Your task to perform on an android device: Open ESPN.com Image 0: 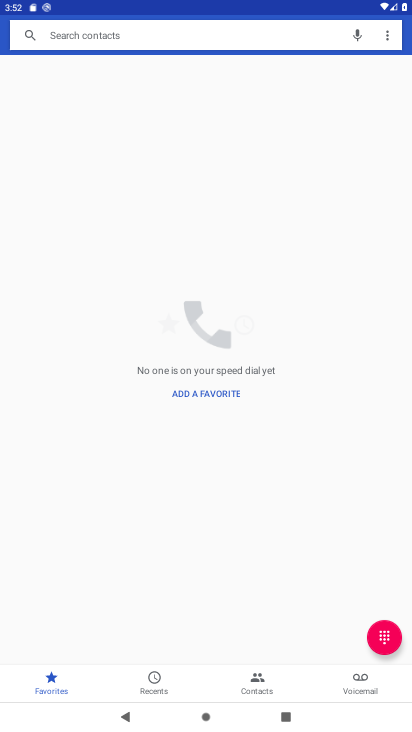
Step 0: press home button
Your task to perform on an android device: Open ESPN.com Image 1: 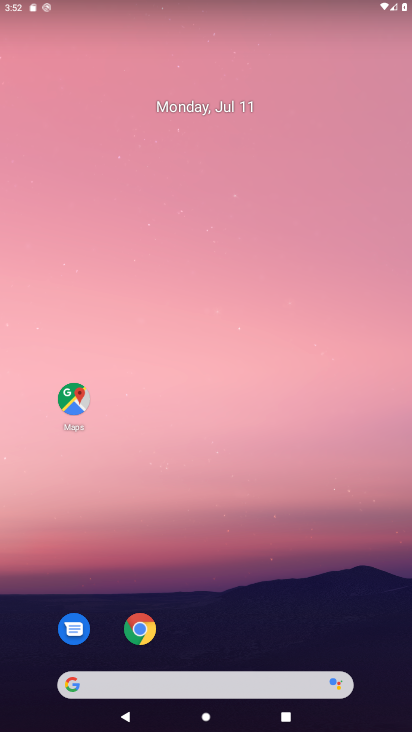
Step 1: click (135, 626)
Your task to perform on an android device: Open ESPN.com Image 2: 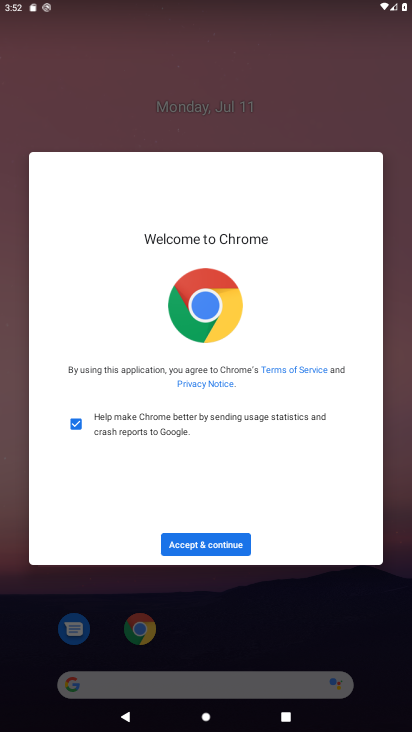
Step 2: click (222, 540)
Your task to perform on an android device: Open ESPN.com Image 3: 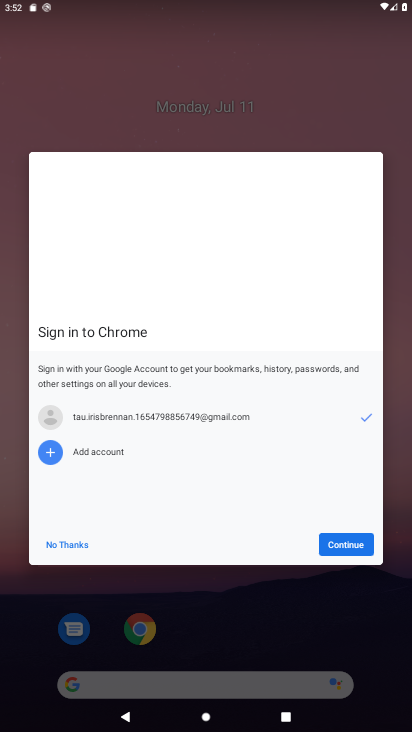
Step 3: click (361, 544)
Your task to perform on an android device: Open ESPN.com Image 4: 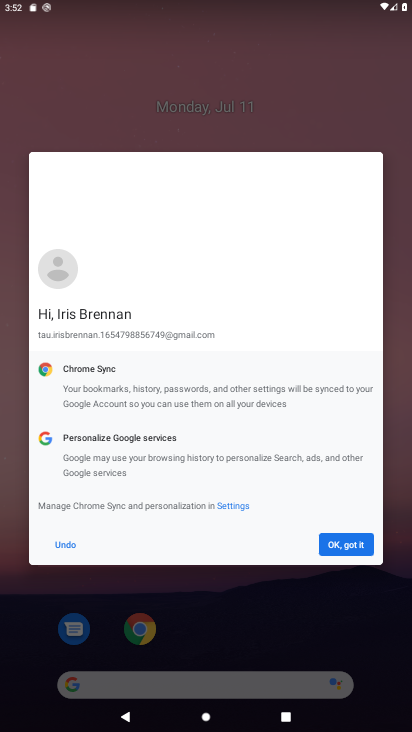
Step 4: click (358, 562)
Your task to perform on an android device: Open ESPN.com Image 5: 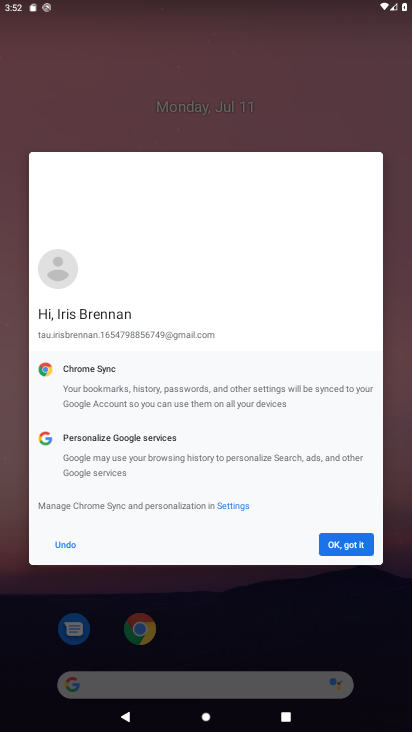
Step 5: click (351, 542)
Your task to perform on an android device: Open ESPN.com Image 6: 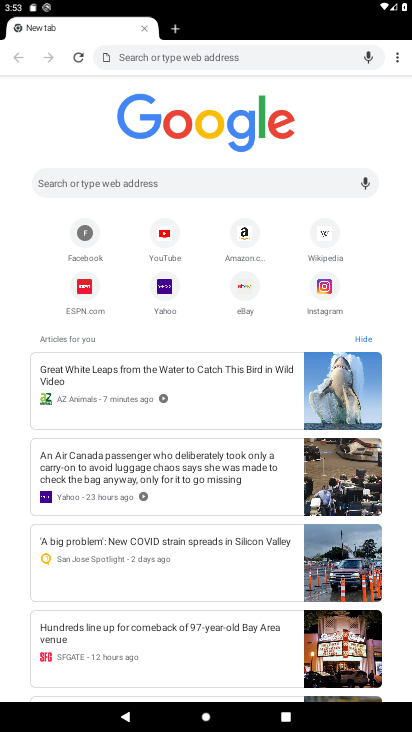
Step 6: click (104, 193)
Your task to perform on an android device: Open ESPN.com Image 7: 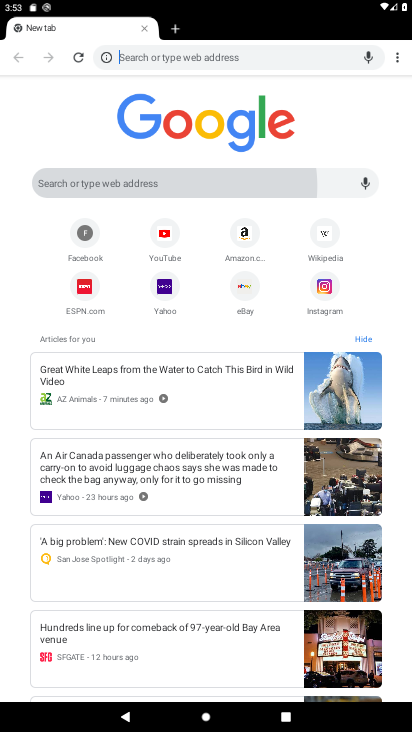
Step 7: click (103, 181)
Your task to perform on an android device: Open ESPN.com Image 8: 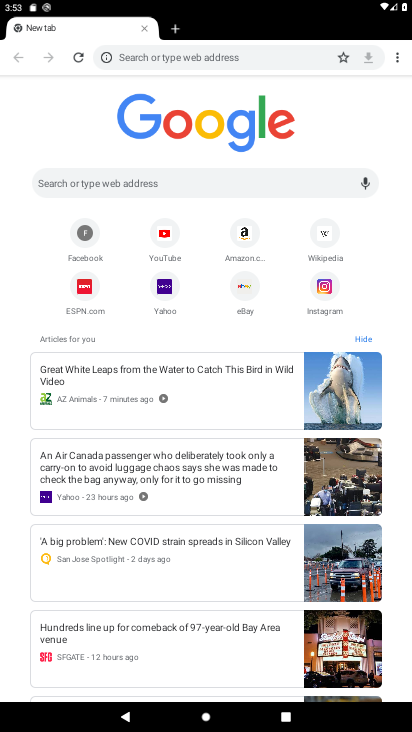
Step 8: click (90, 178)
Your task to perform on an android device: Open ESPN.com Image 9: 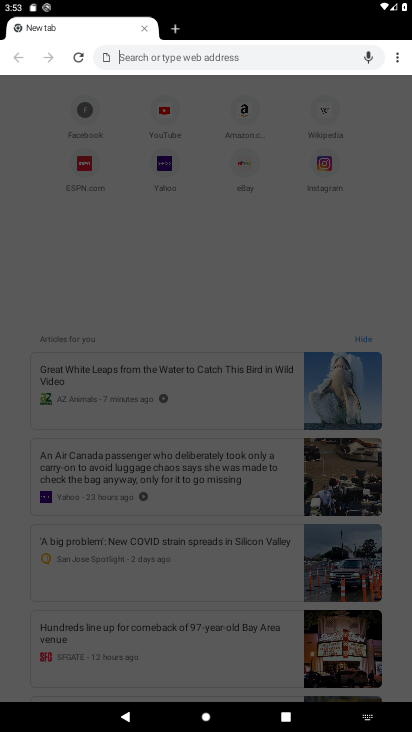
Step 9: type "ESPN.com"
Your task to perform on an android device: Open ESPN.com Image 10: 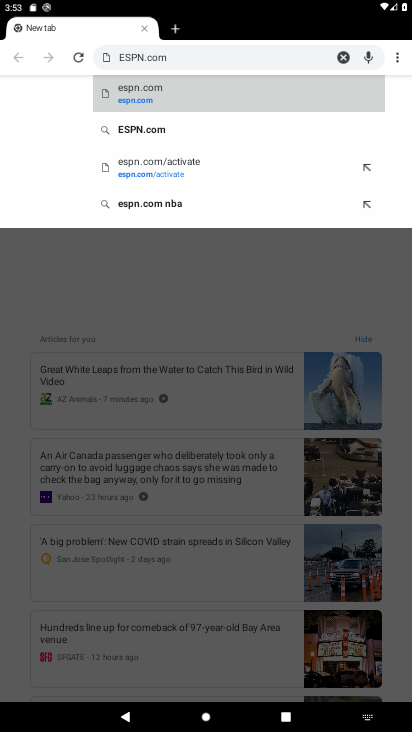
Step 10: click (152, 129)
Your task to perform on an android device: Open ESPN.com Image 11: 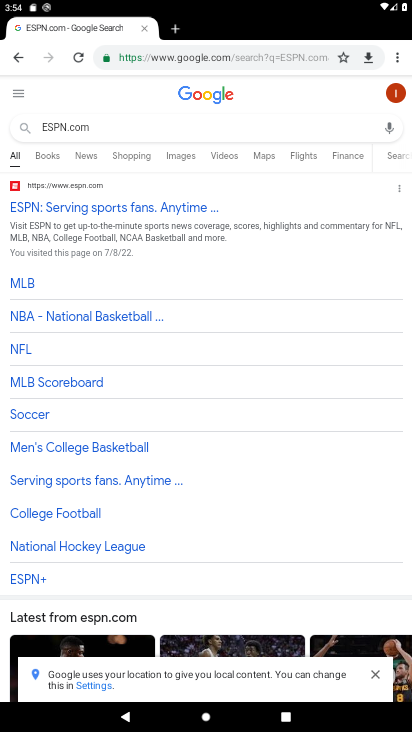
Step 11: task complete